Your task to perform on an android device: make emails show in primary in the gmail app Image 0: 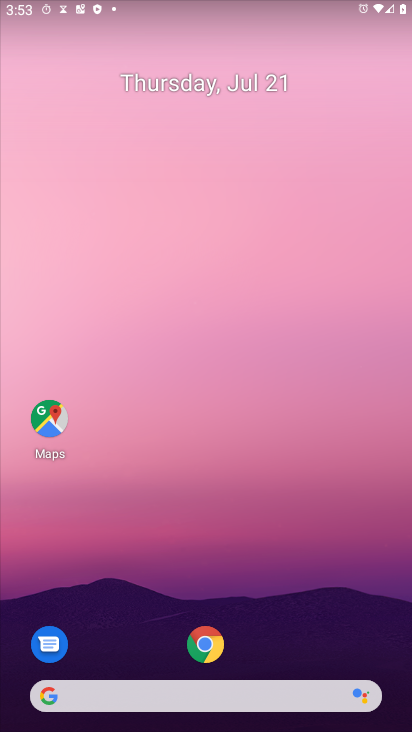
Step 0: press home button
Your task to perform on an android device: make emails show in primary in the gmail app Image 1: 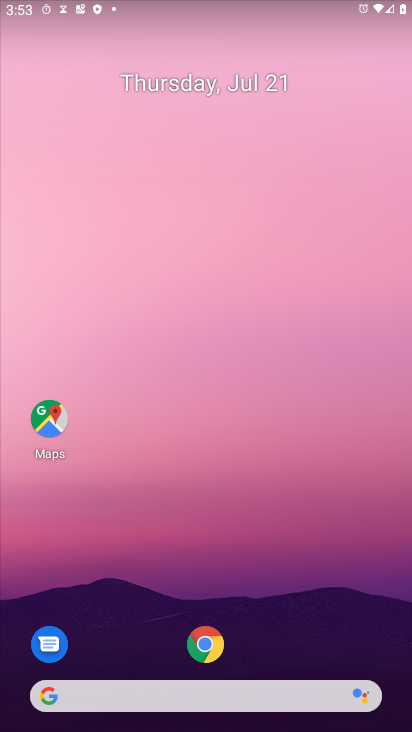
Step 1: press home button
Your task to perform on an android device: make emails show in primary in the gmail app Image 2: 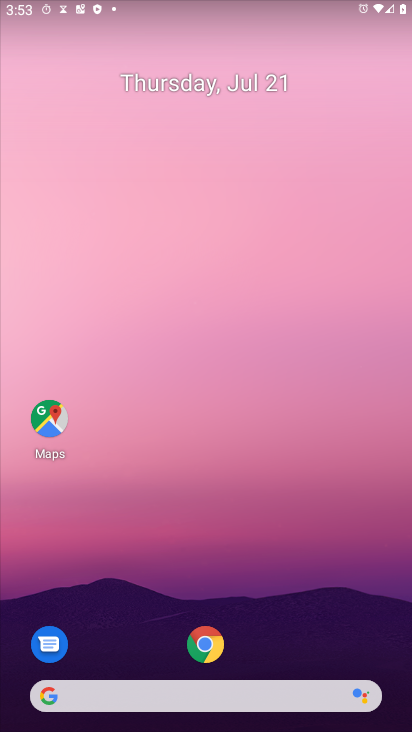
Step 2: drag from (286, 577) to (348, 74)
Your task to perform on an android device: make emails show in primary in the gmail app Image 3: 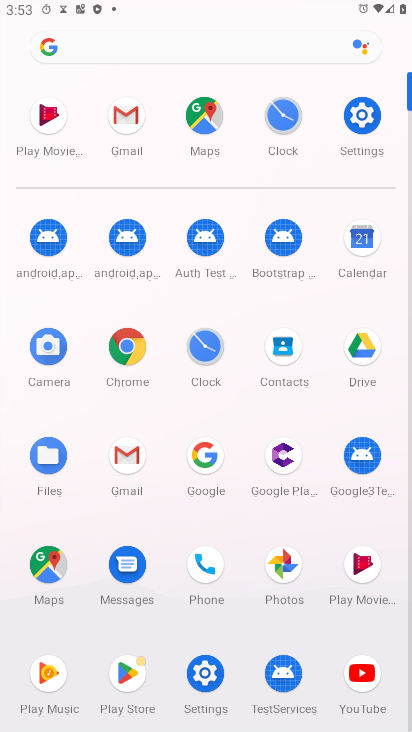
Step 3: click (123, 116)
Your task to perform on an android device: make emails show in primary in the gmail app Image 4: 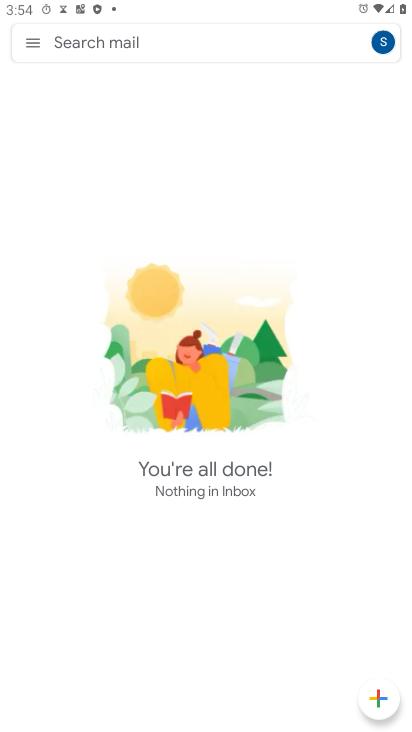
Step 4: click (38, 39)
Your task to perform on an android device: make emails show in primary in the gmail app Image 5: 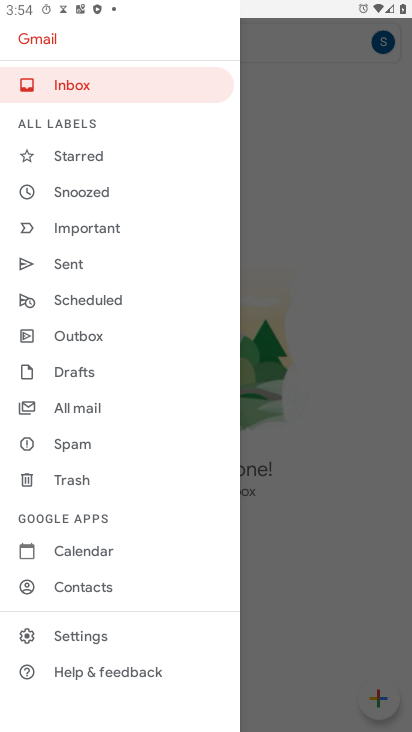
Step 5: click (104, 628)
Your task to perform on an android device: make emails show in primary in the gmail app Image 6: 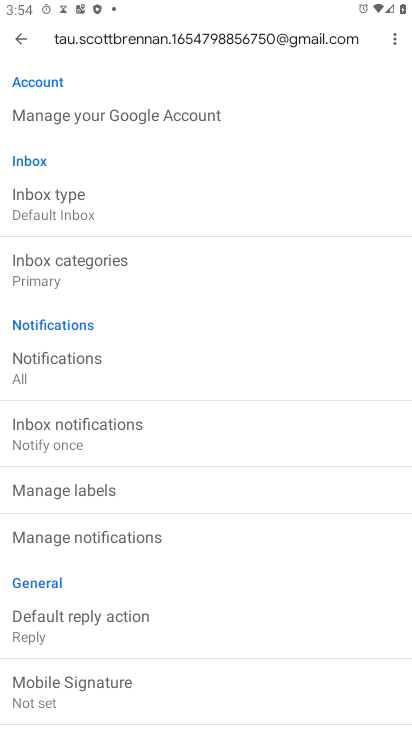
Step 6: click (65, 280)
Your task to perform on an android device: make emails show in primary in the gmail app Image 7: 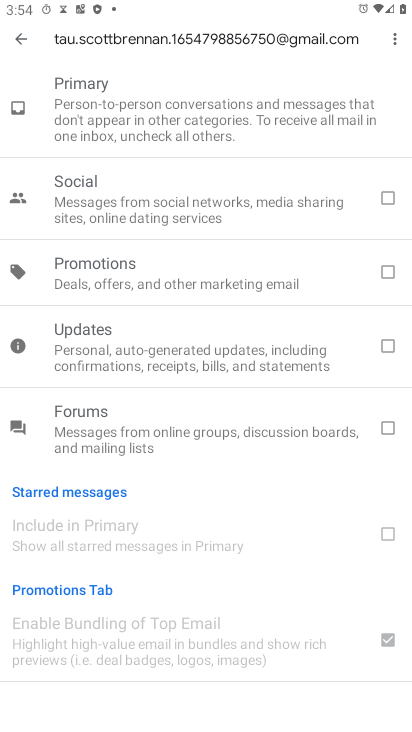
Step 7: task complete